Your task to perform on an android device: check out phone information Image 0: 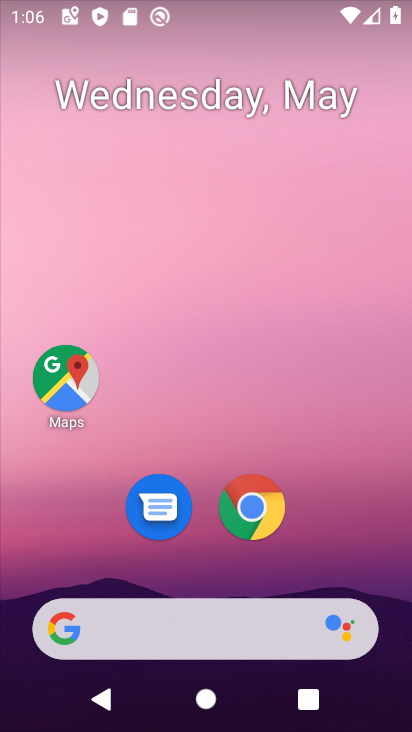
Step 0: drag from (306, 556) to (264, 174)
Your task to perform on an android device: check out phone information Image 1: 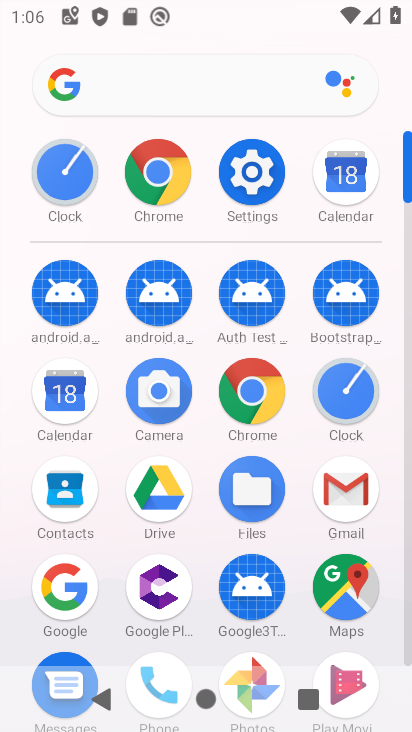
Step 1: click (246, 176)
Your task to perform on an android device: check out phone information Image 2: 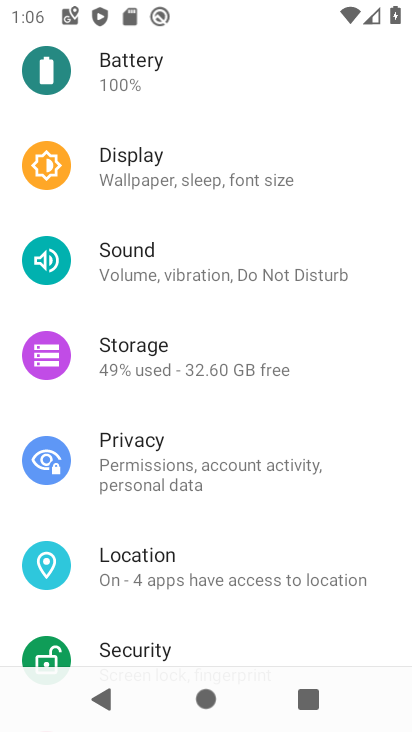
Step 2: drag from (209, 617) to (241, 176)
Your task to perform on an android device: check out phone information Image 3: 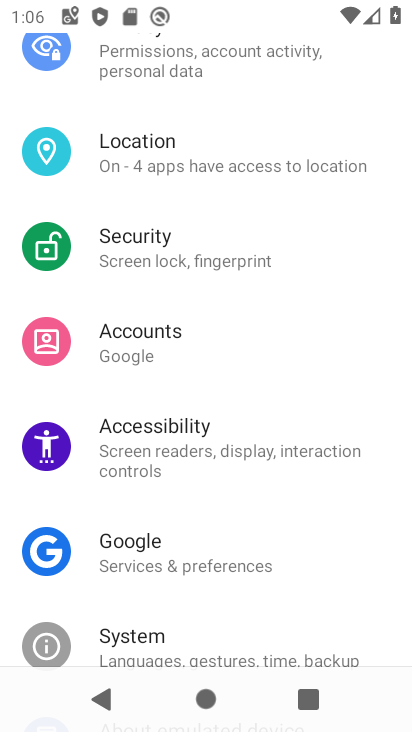
Step 3: drag from (203, 524) to (282, 164)
Your task to perform on an android device: check out phone information Image 4: 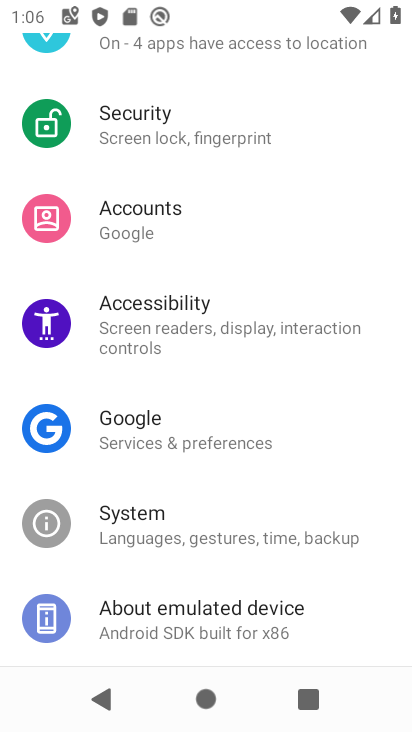
Step 4: click (159, 622)
Your task to perform on an android device: check out phone information Image 5: 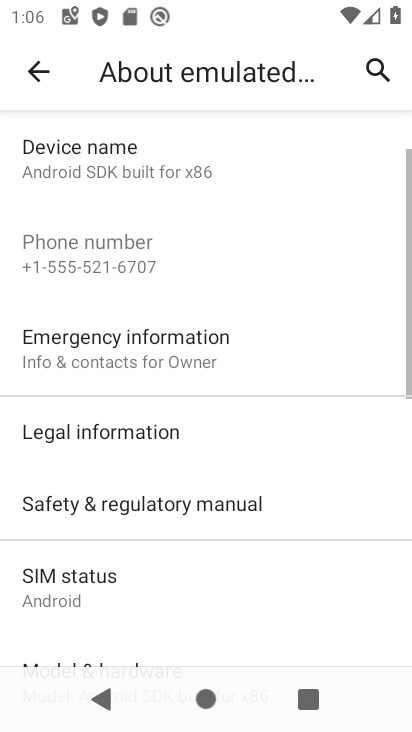
Step 5: task complete